Your task to perform on an android device: turn on sleep mode Image 0: 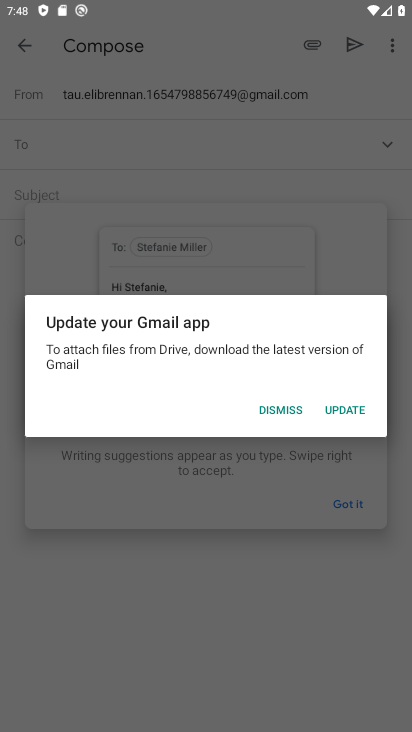
Step 0: press home button
Your task to perform on an android device: turn on sleep mode Image 1: 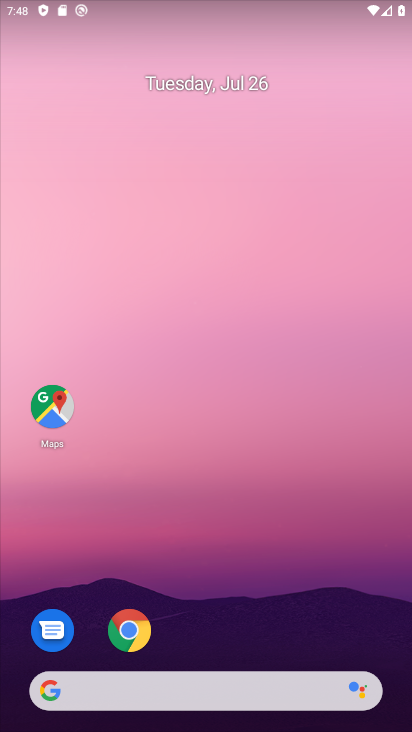
Step 1: drag from (179, 702) to (241, 336)
Your task to perform on an android device: turn on sleep mode Image 2: 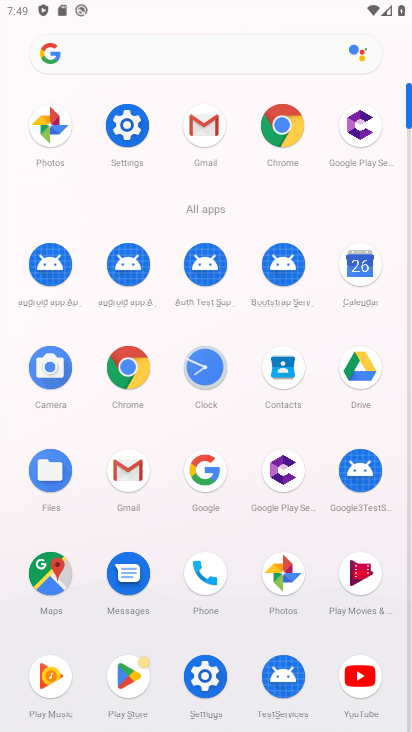
Step 2: click (125, 129)
Your task to perform on an android device: turn on sleep mode Image 3: 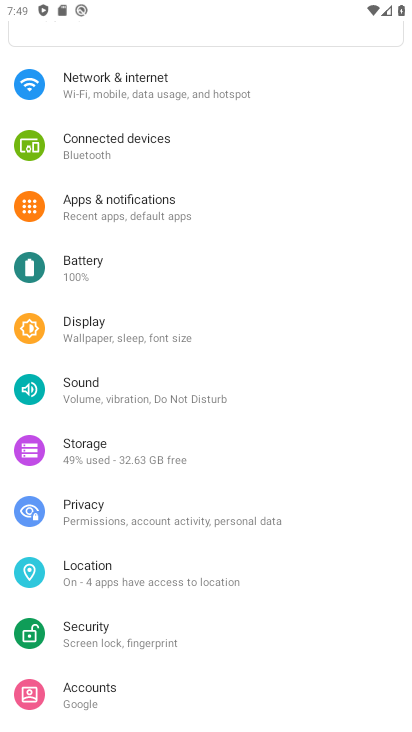
Step 3: click (89, 336)
Your task to perform on an android device: turn on sleep mode Image 4: 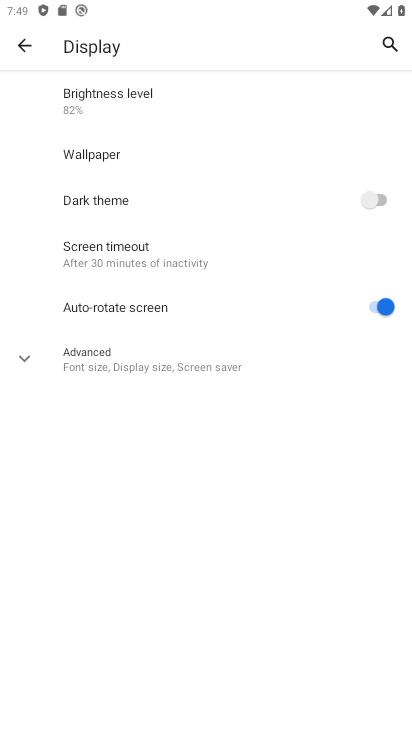
Step 4: click (143, 260)
Your task to perform on an android device: turn on sleep mode Image 5: 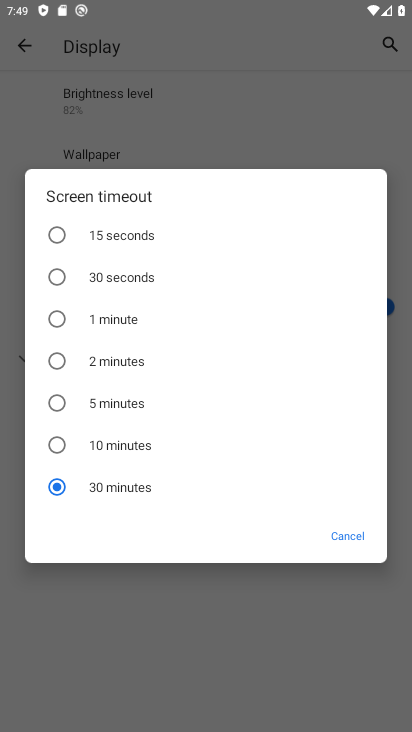
Step 5: click (143, 260)
Your task to perform on an android device: turn on sleep mode Image 6: 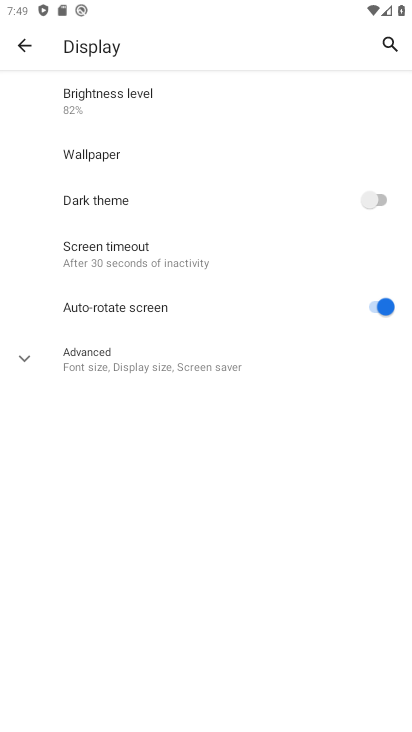
Step 6: task complete